Your task to perform on an android device: set the stopwatch Image 0: 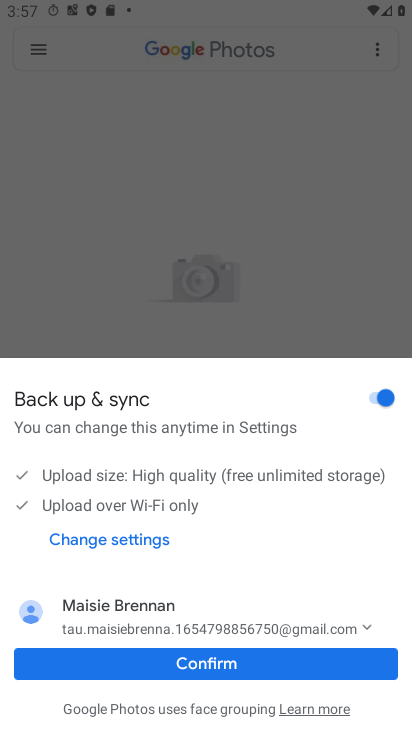
Step 0: press home button
Your task to perform on an android device: set the stopwatch Image 1: 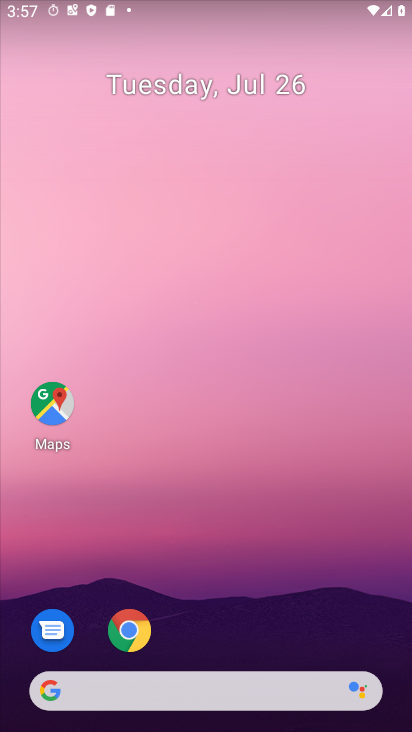
Step 1: drag from (265, 643) to (162, 3)
Your task to perform on an android device: set the stopwatch Image 2: 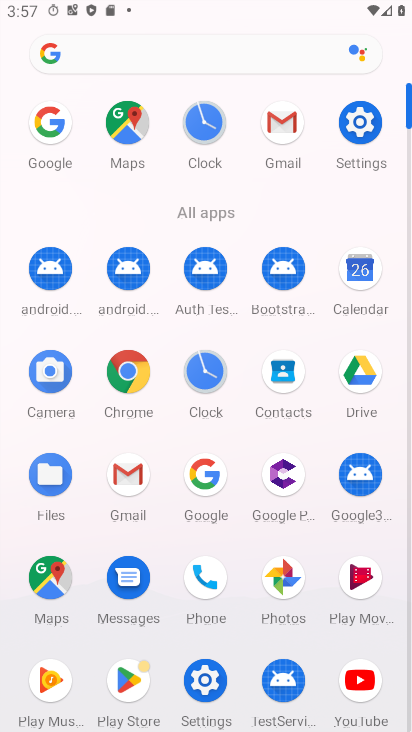
Step 2: click (191, 131)
Your task to perform on an android device: set the stopwatch Image 3: 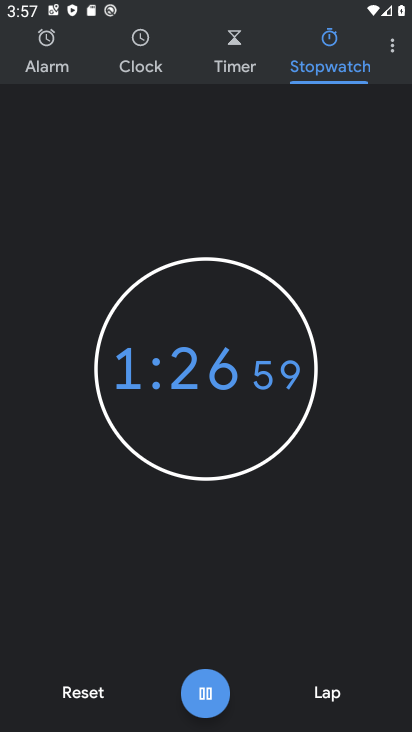
Step 3: task complete